Your task to perform on an android device: change the clock style Image 0: 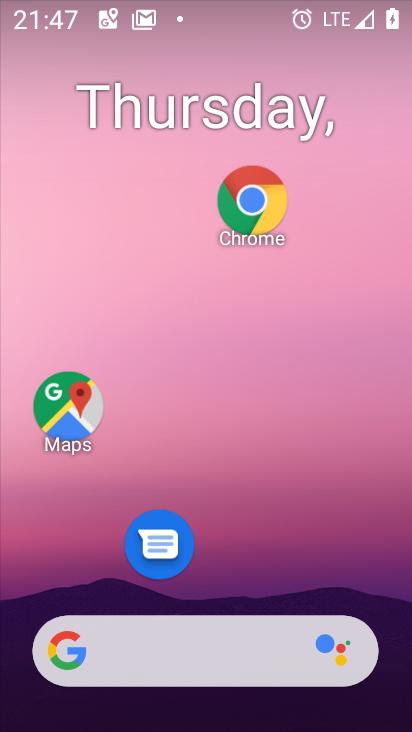
Step 0: drag from (213, 608) to (282, 61)
Your task to perform on an android device: change the clock style Image 1: 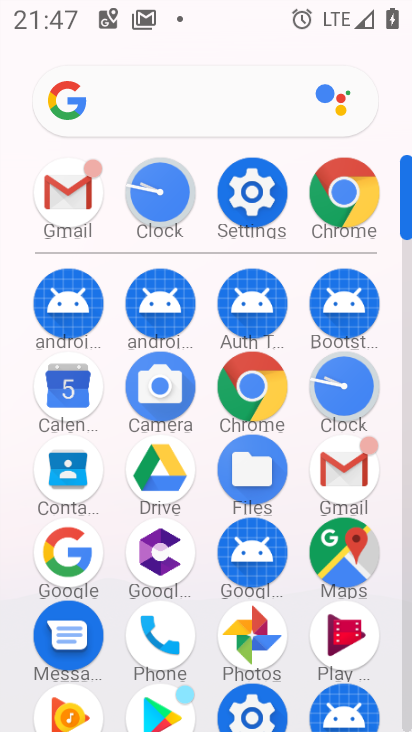
Step 1: click (155, 184)
Your task to perform on an android device: change the clock style Image 2: 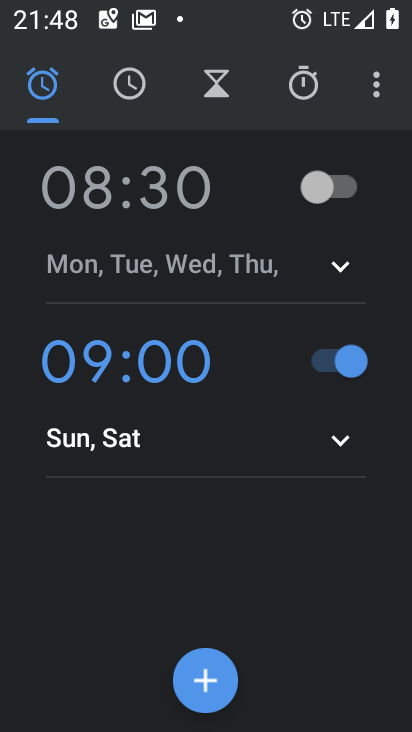
Step 2: click (370, 70)
Your task to perform on an android device: change the clock style Image 3: 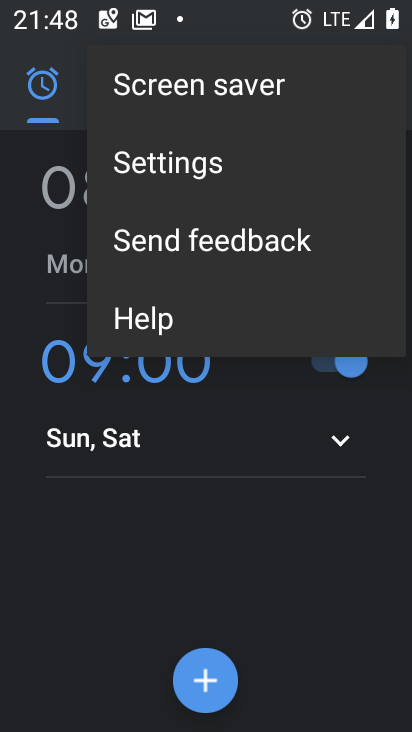
Step 3: click (215, 190)
Your task to perform on an android device: change the clock style Image 4: 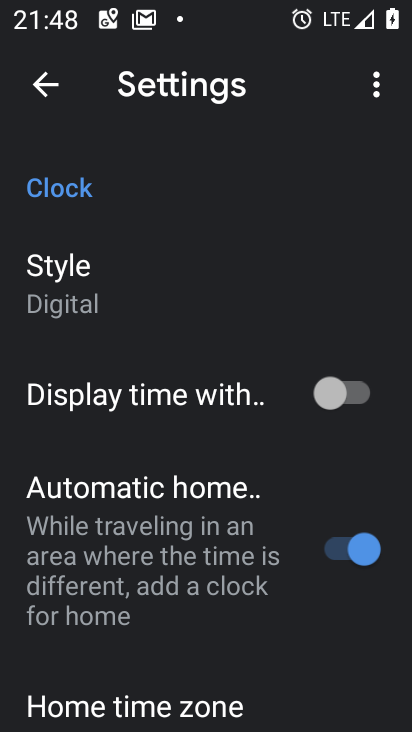
Step 4: click (183, 309)
Your task to perform on an android device: change the clock style Image 5: 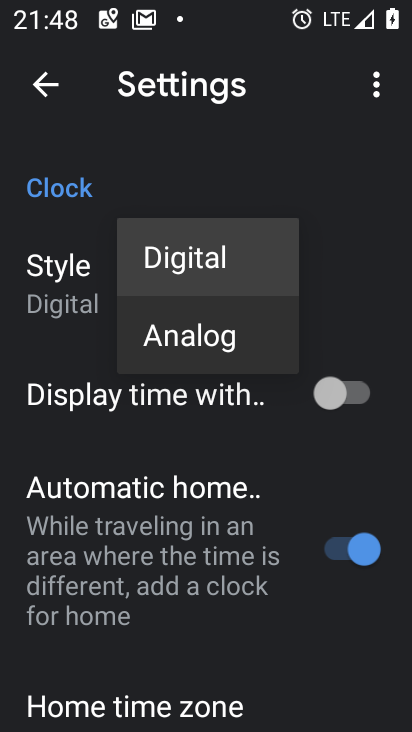
Step 5: click (200, 347)
Your task to perform on an android device: change the clock style Image 6: 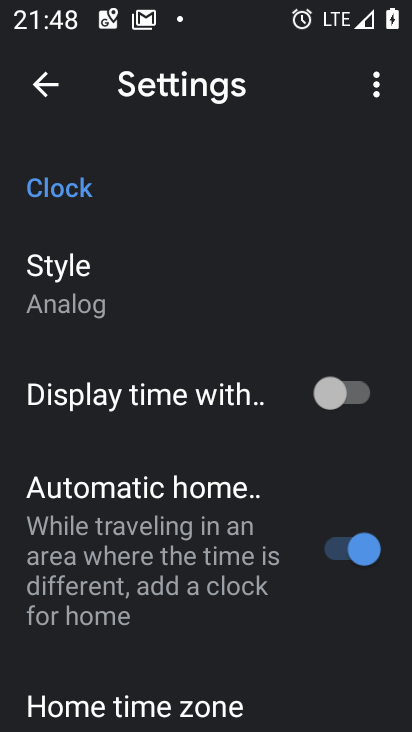
Step 6: task complete